Your task to perform on an android device: turn smart compose on in the gmail app Image 0: 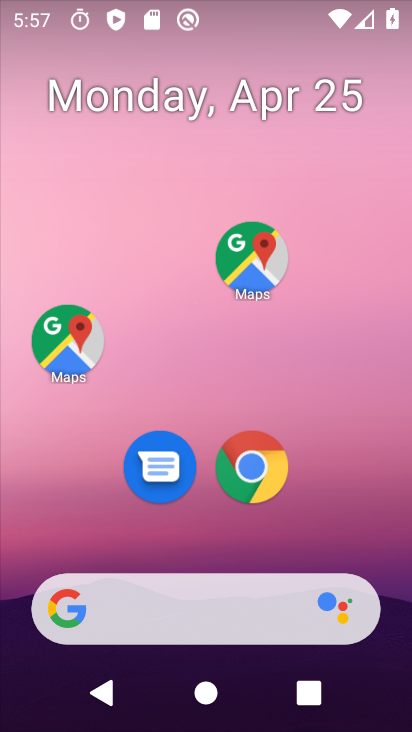
Step 0: drag from (347, 586) to (343, 6)
Your task to perform on an android device: turn smart compose on in the gmail app Image 1: 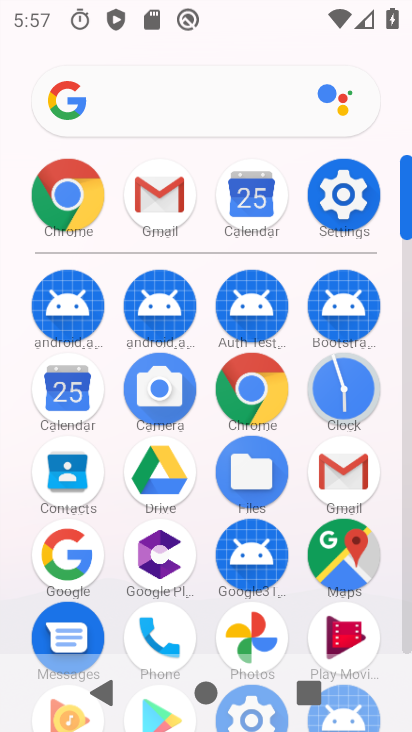
Step 1: click (347, 471)
Your task to perform on an android device: turn smart compose on in the gmail app Image 2: 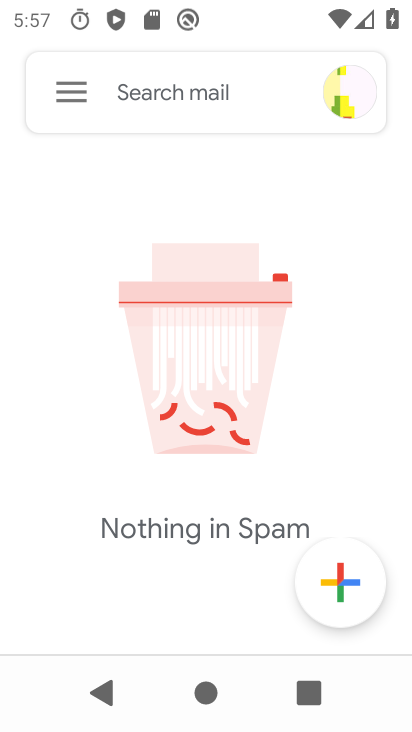
Step 2: click (87, 76)
Your task to perform on an android device: turn smart compose on in the gmail app Image 3: 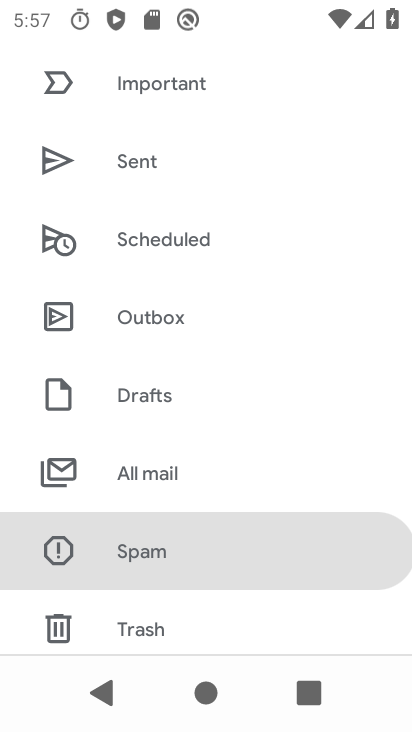
Step 3: drag from (160, 593) to (208, 7)
Your task to perform on an android device: turn smart compose on in the gmail app Image 4: 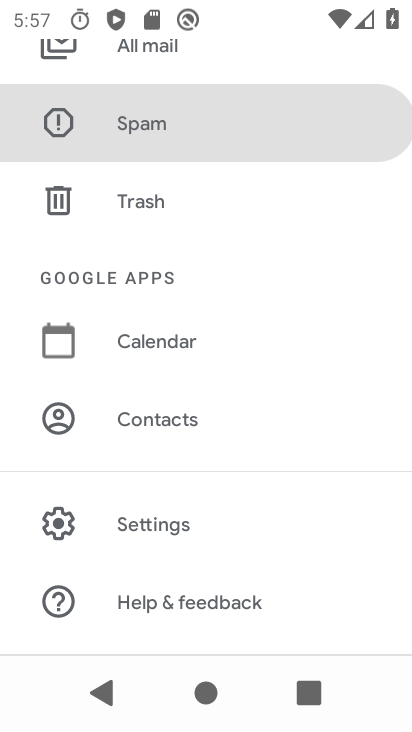
Step 4: click (201, 534)
Your task to perform on an android device: turn smart compose on in the gmail app Image 5: 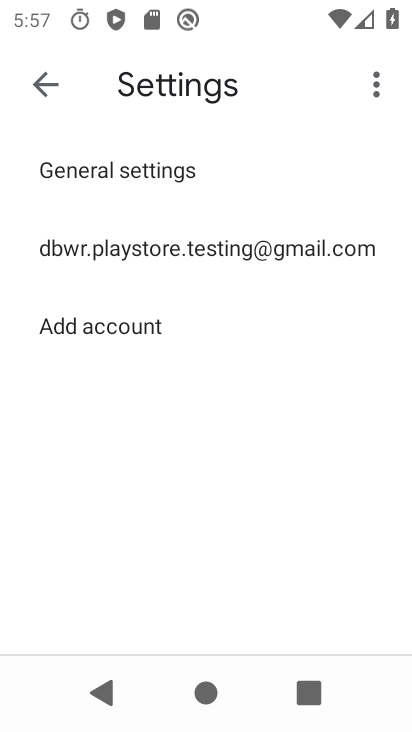
Step 5: click (231, 247)
Your task to perform on an android device: turn smart compose on in the gmail app Image 6: 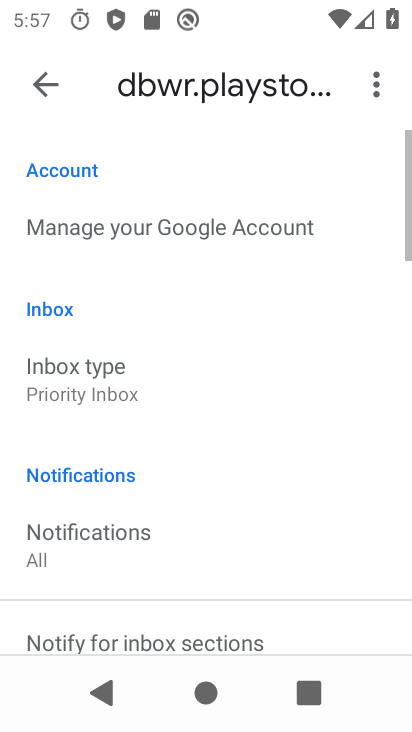
Step 6: task complete